Your task to perform on an android device: Add "razer huntsman" to the cart on target.com Image 0: 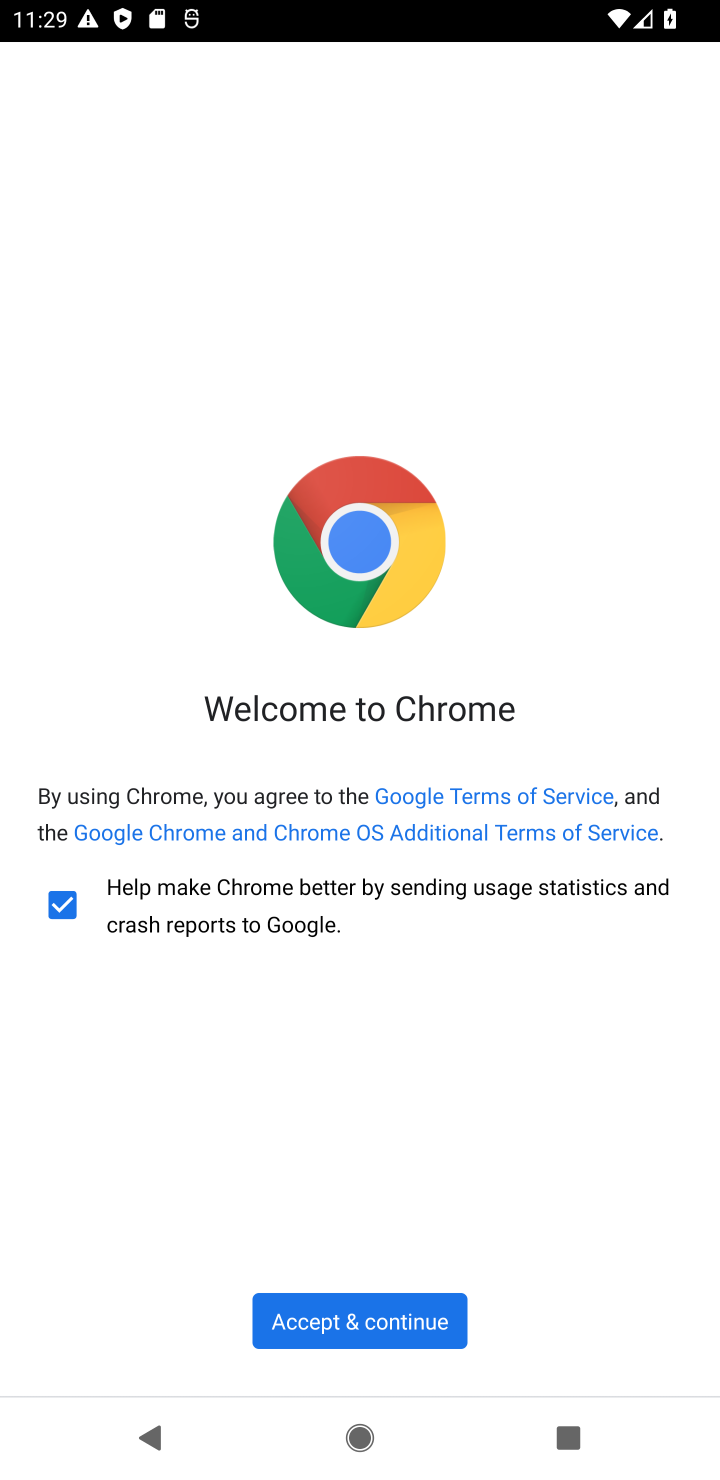
Step 0: press home button
Your task to perform on an android device: Add "razer huntsman" to the cart on target.com Image 1: 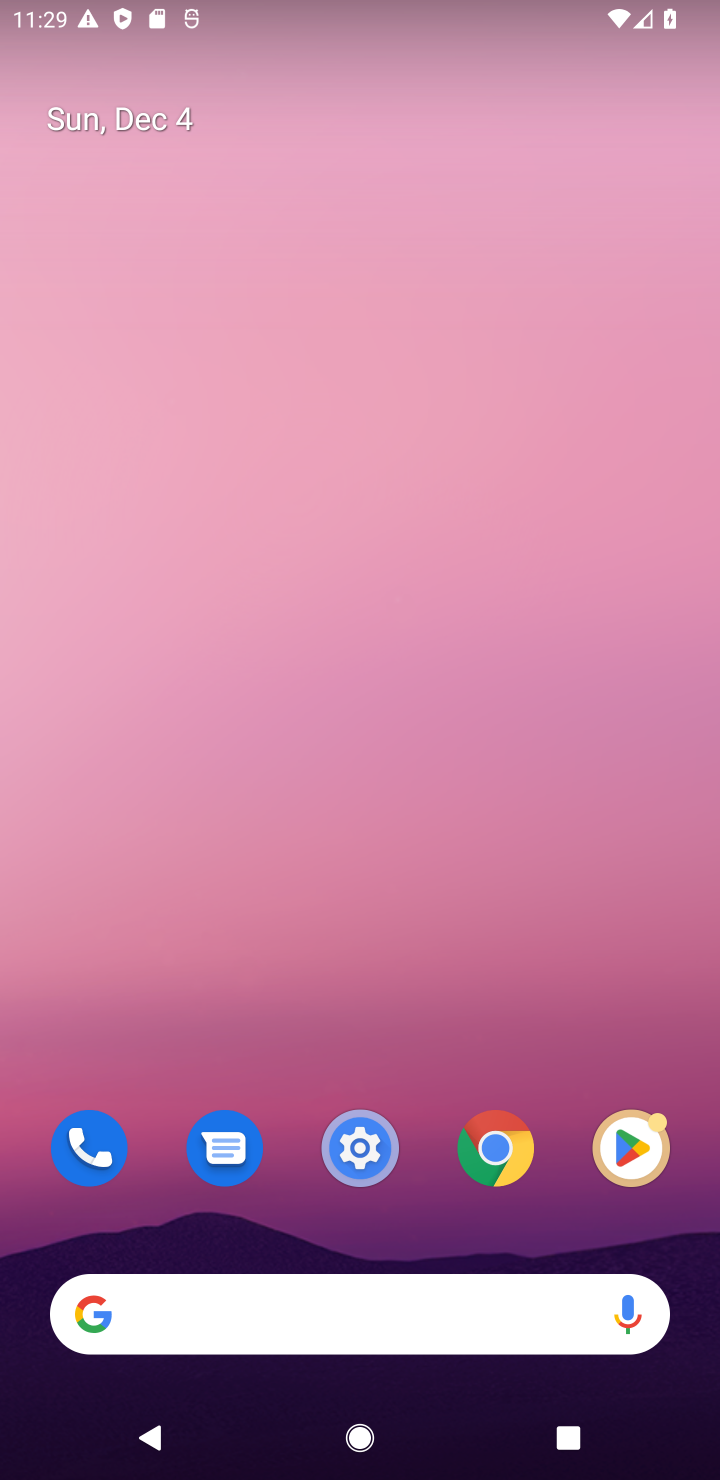
Step 1: drag from (336, 626) to (366, 370)
Your task to perform on an android device: Add "razer huntsman" to the cart on target.com Image 2: 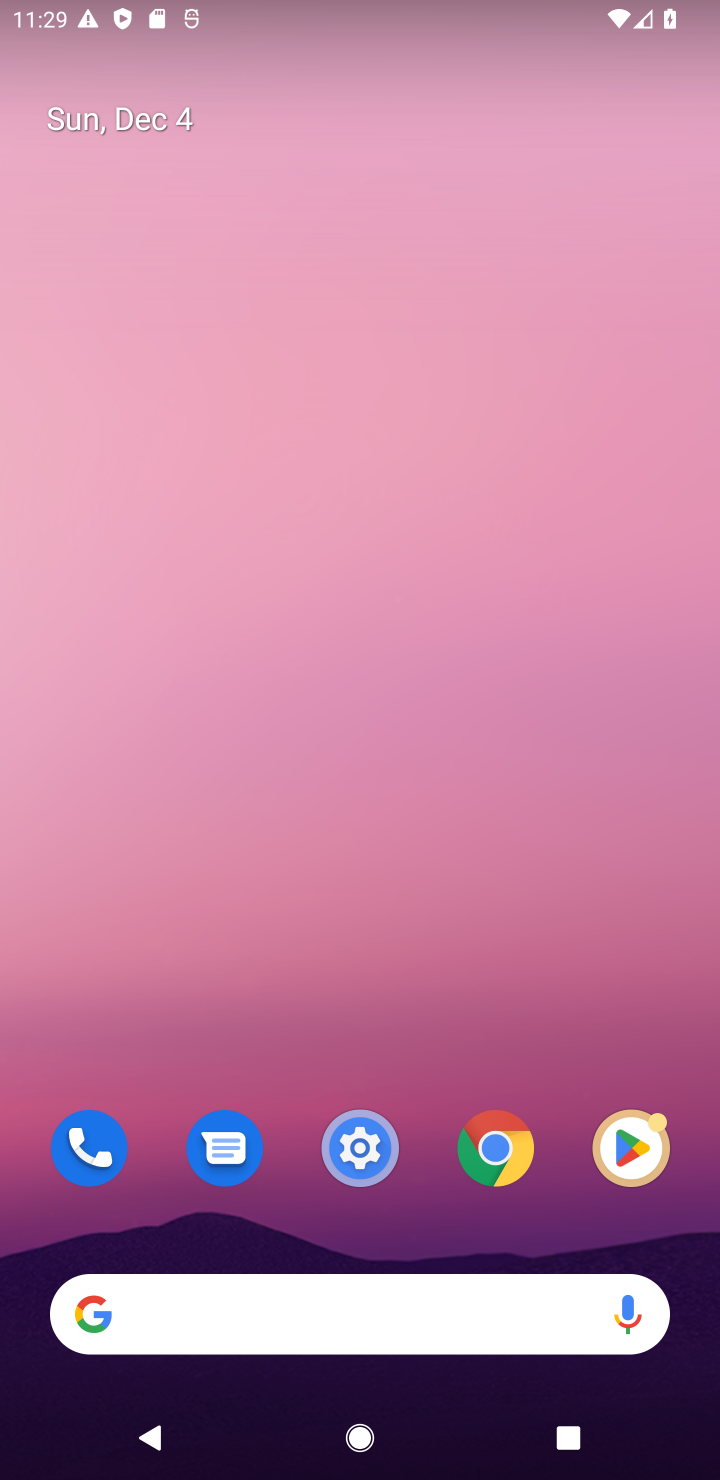
Step 2: drag from (410, 1256) to (432, 258)
Your task to perform on an android device: Add "razer huntsman" to the cart on target.com Image 3: 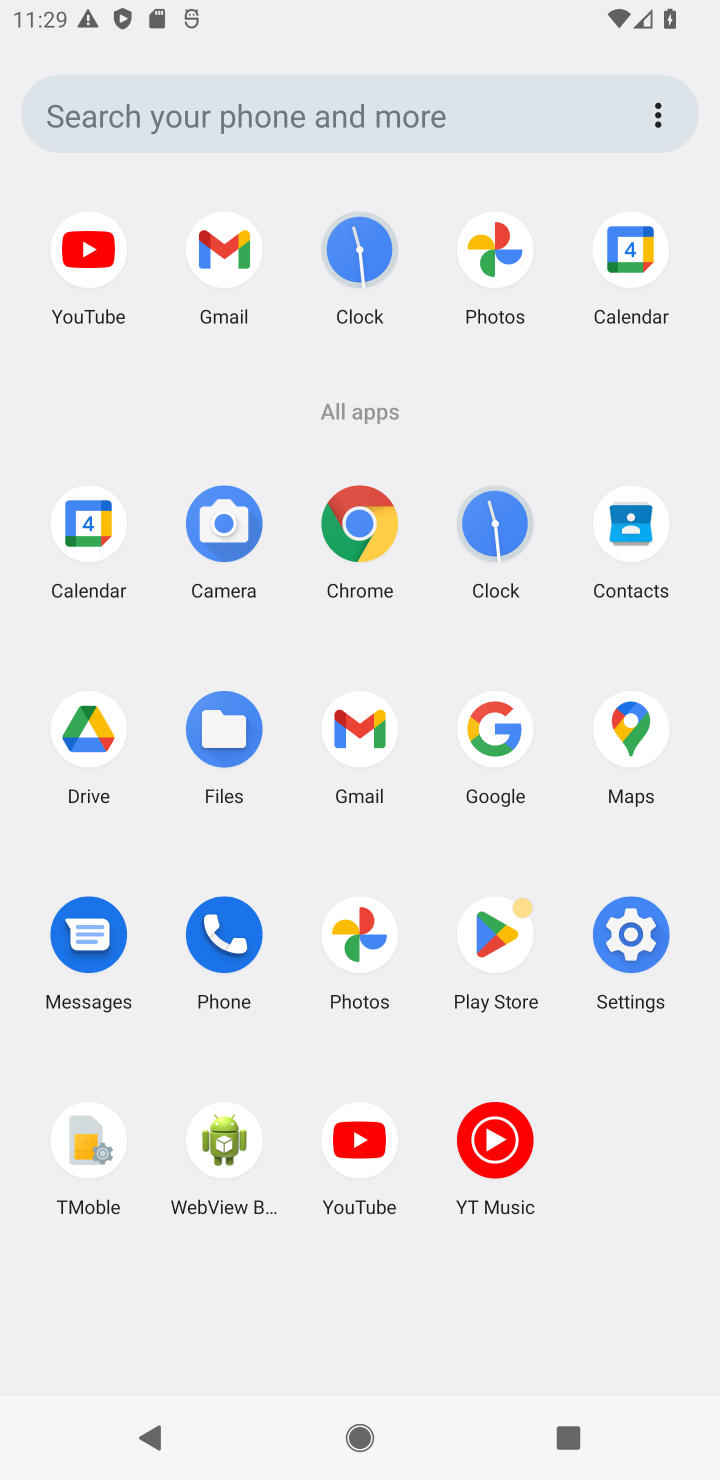
Step 3: click (481, 736)
Your task to perform on an android device: Add "razer huntsman" to the cart on target.com Image 4: 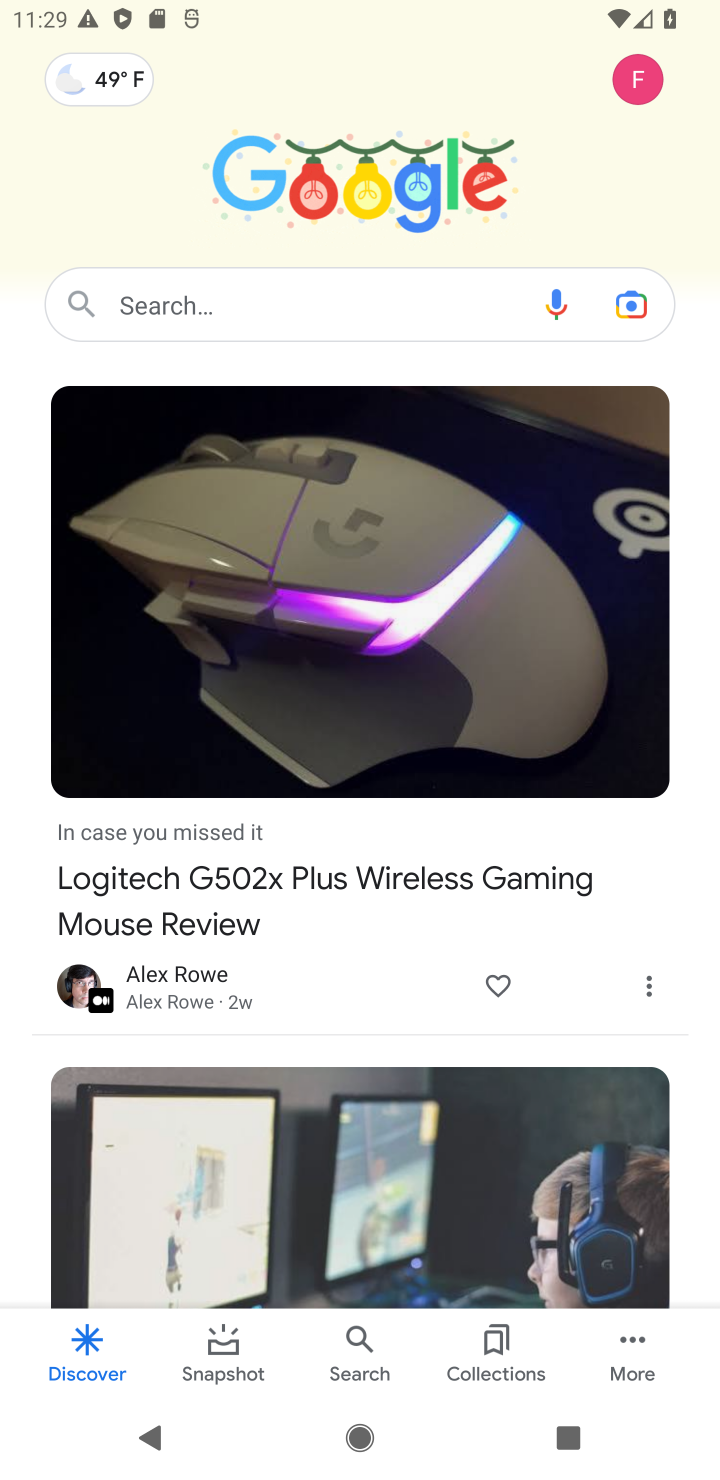
Step 4: click (168, 313)
Your task to perform on an android device: Add "razer huntsman" to the cart on target.com Image 5: 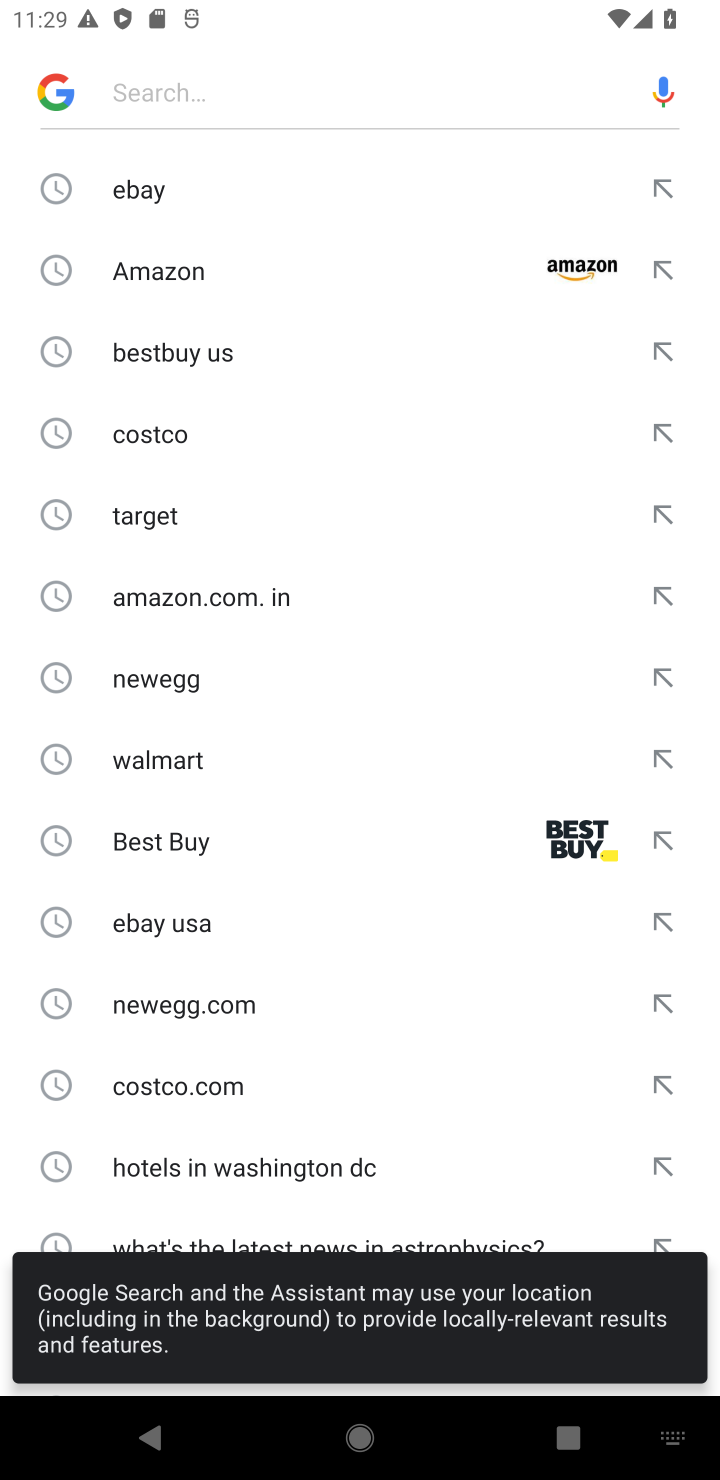
Step 5: click (141, 521)
Your task to perform on an android device: Add "razer huntsman" to the cart on target.com Image 6: 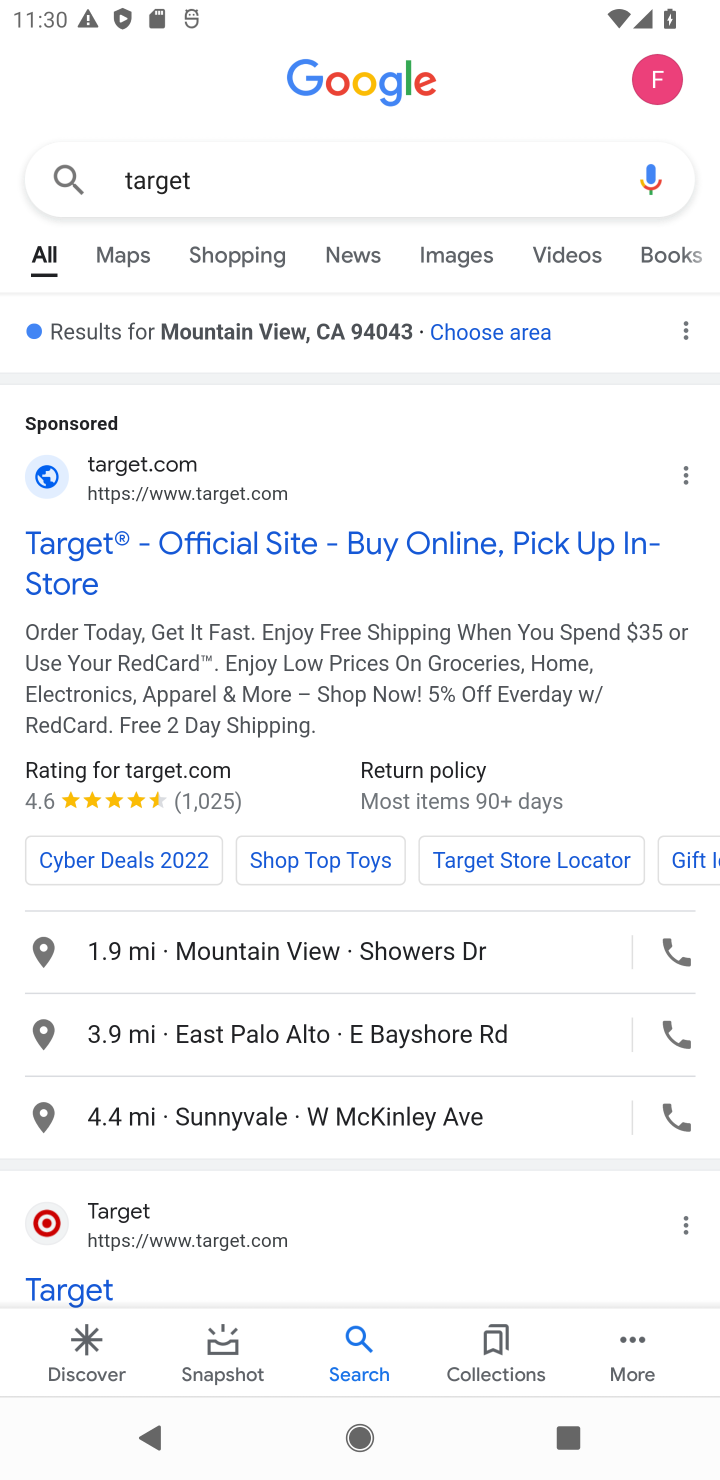
Step 6: click (144, 551)
Your task to perform on an android device: Add "razer huntsman" to the cart on target.com Image 7: 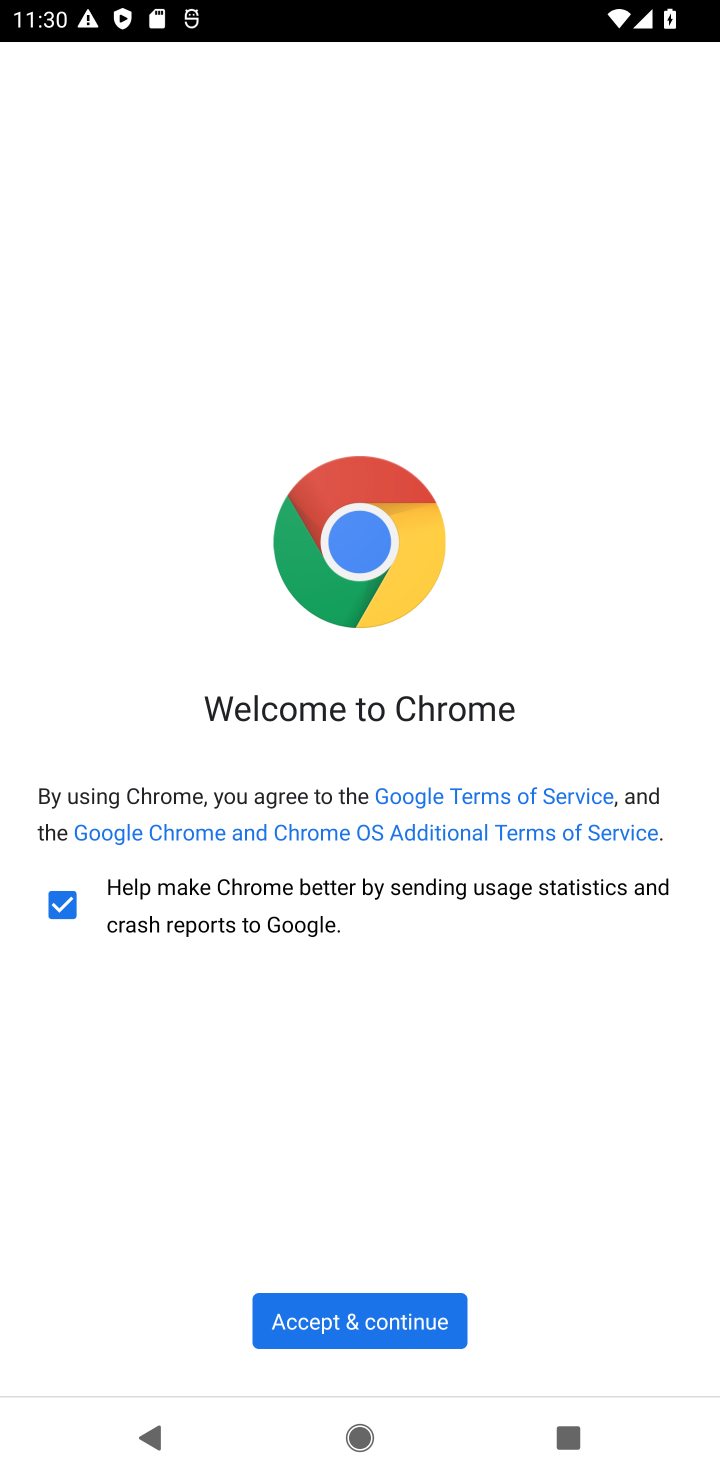
Step 7: click (344, 1329)
Your task to perform on an android device: Add "razer huntsman" to the cart on target.com Image 8: 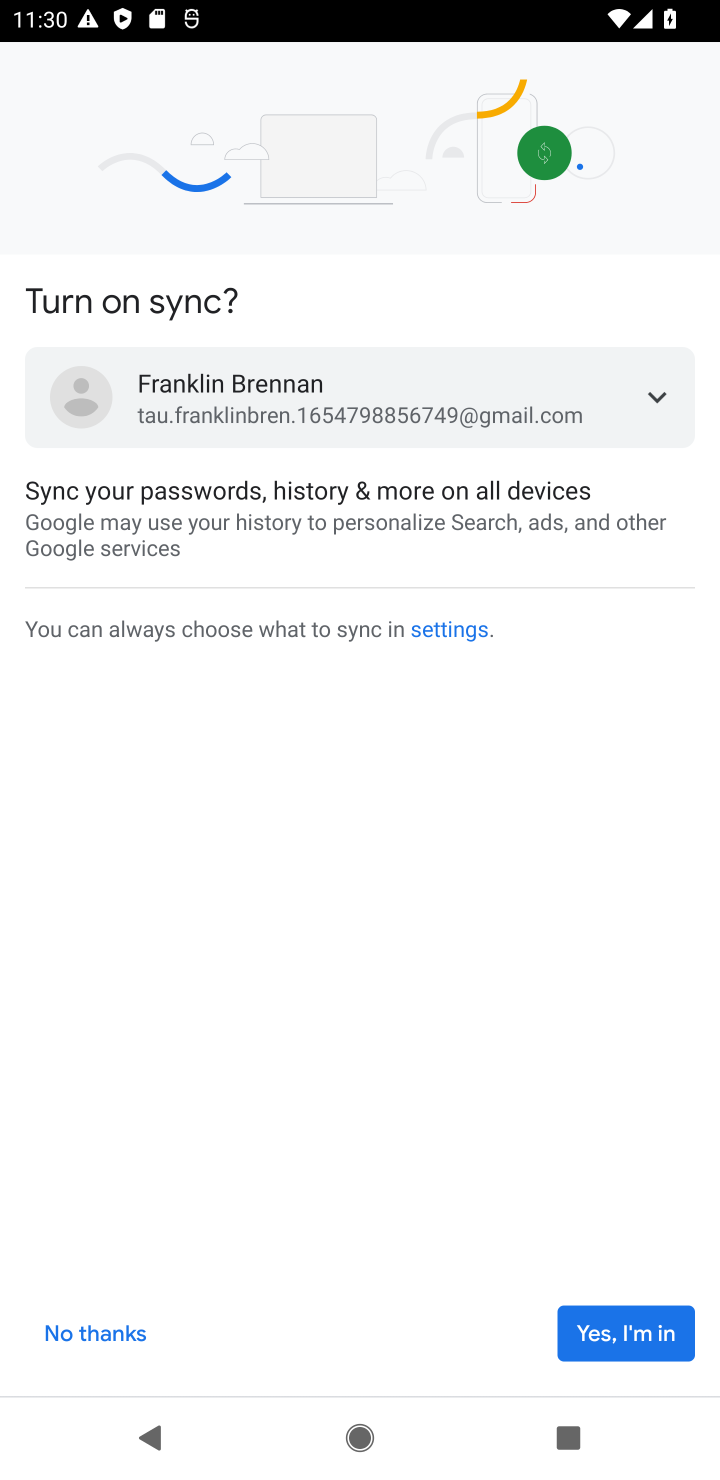
Step 8: click (585, 1343)
Your task to perform on an android device: Add "razer huntsman" to the cart on target.com Image 9: 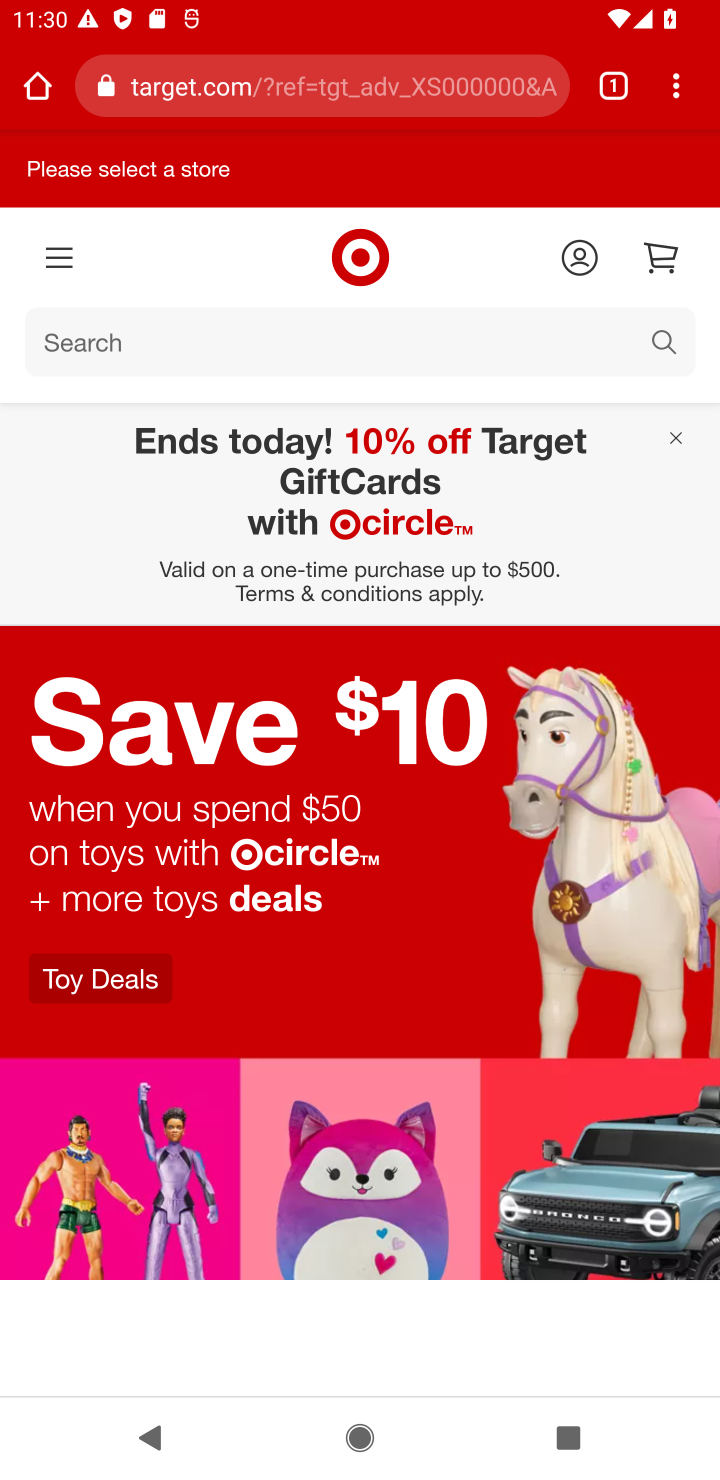
Step 9: click (81, 346)
Your task to perform on an android device: Add "razer huntsman" to the cart on target.com Image 10: 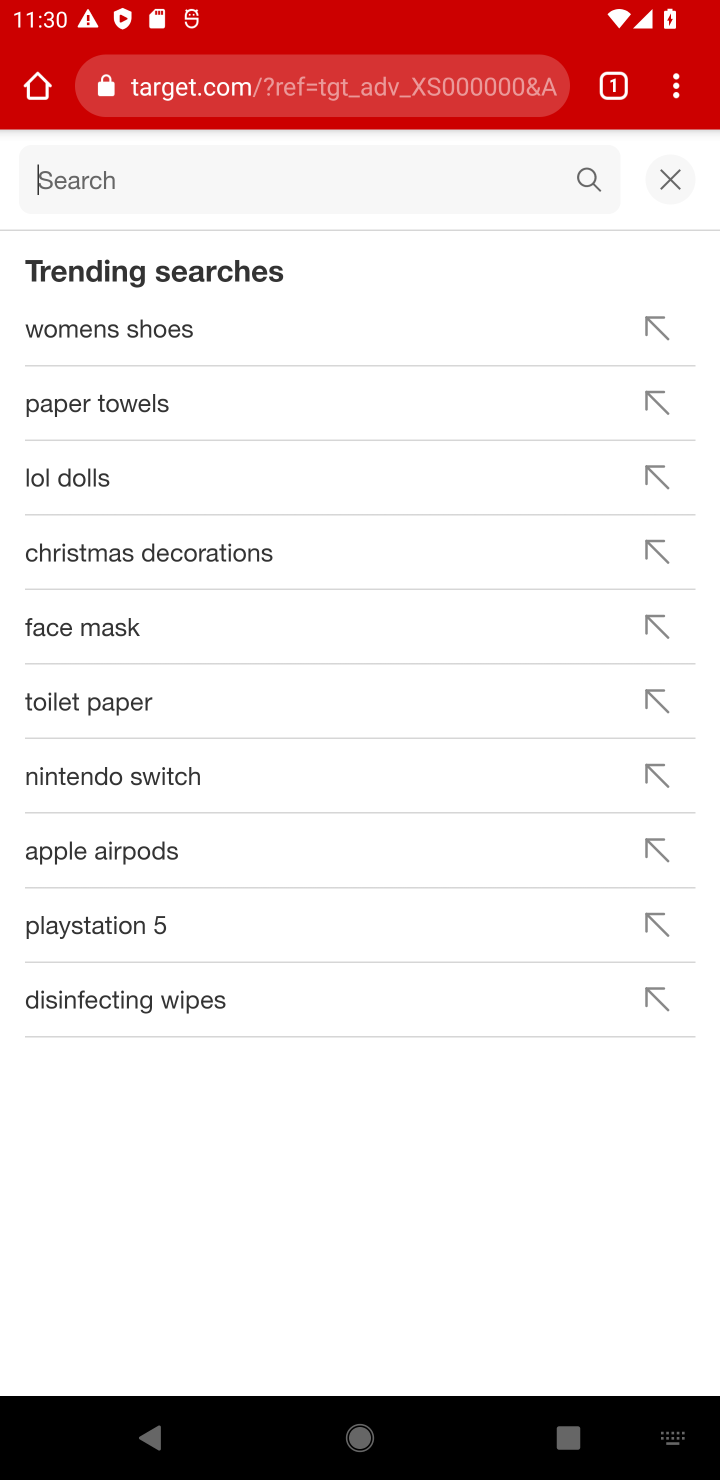
Step 10: type "razer huntsman"
Your task to perform on an android device: Add "razer huntsman" to the cart on target.com Image 11: 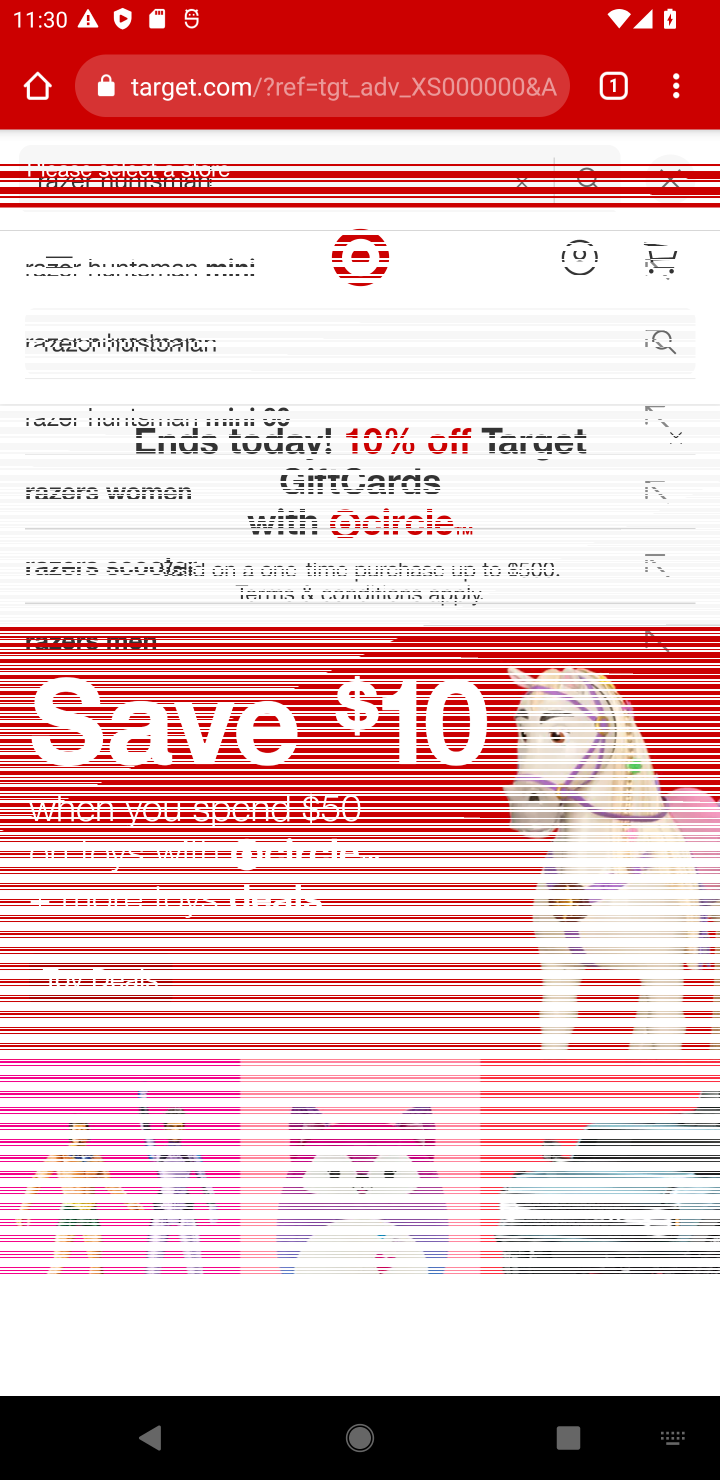
Step 11: click (179, 355)
Your task to perform on an android device: Add "razer huntsman" to the cart on target.com Image 12: 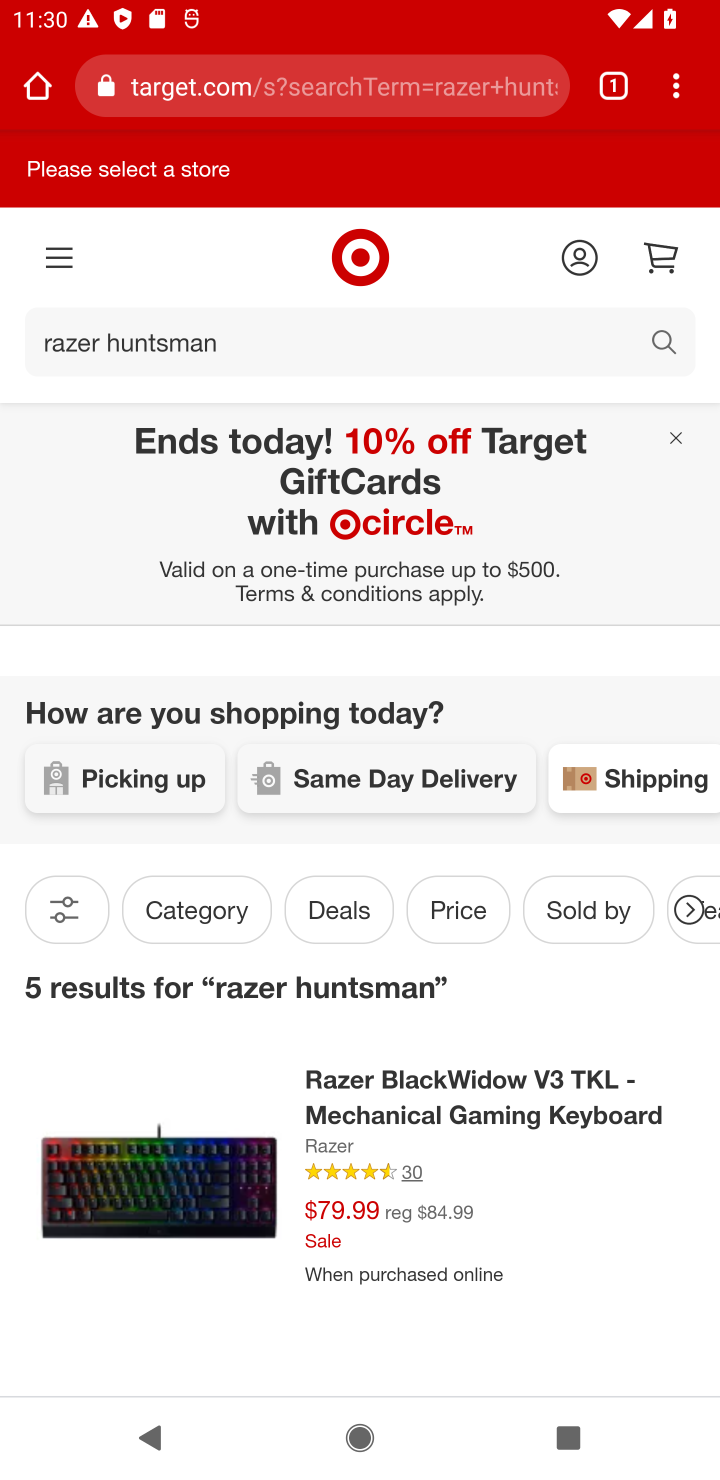
Step 12: drag from (425, 1123) to (441, 584)
Your task to perform on an android device: Add "razer huntsman" to the cart on target.com Image 13: 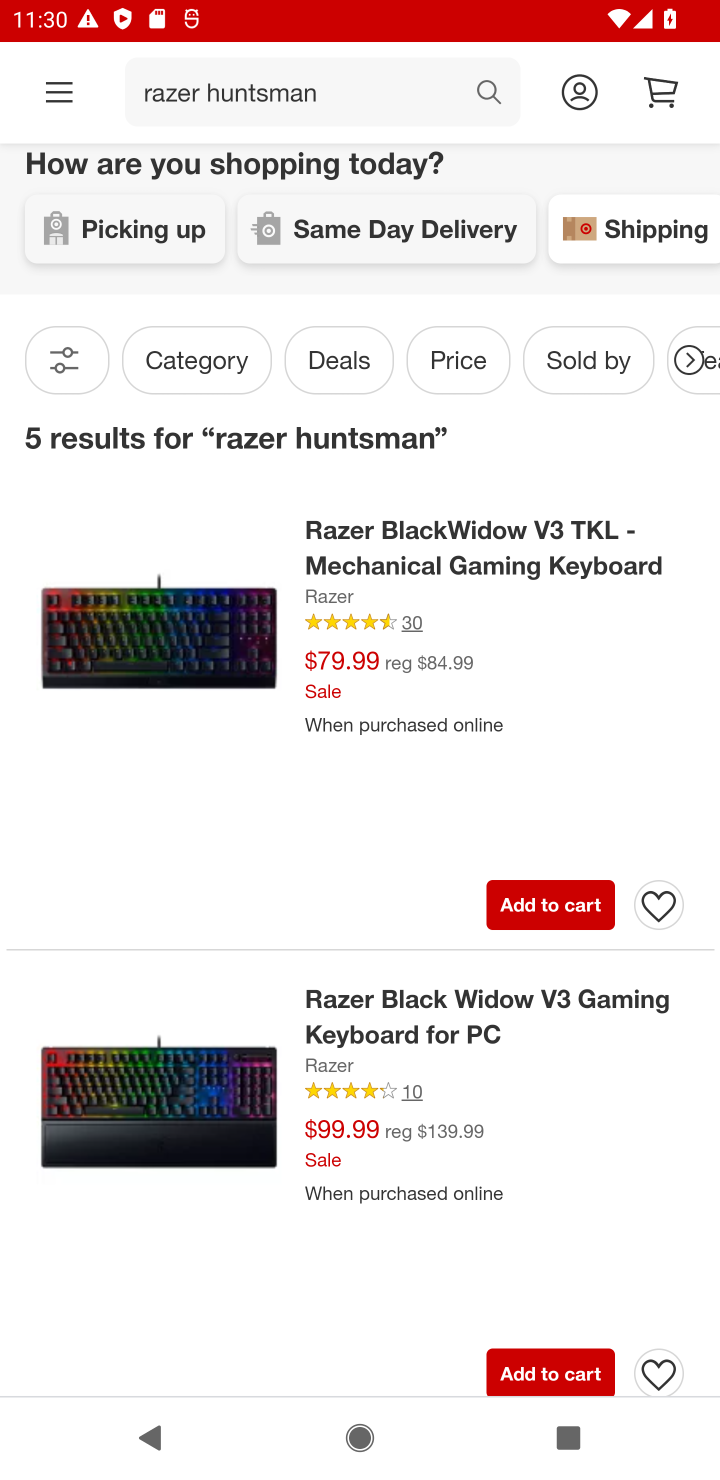
Step 13: click (529, 915)
Your task to perform on an android device: Add "razer huntsman" to the cart on target.com Image 14: 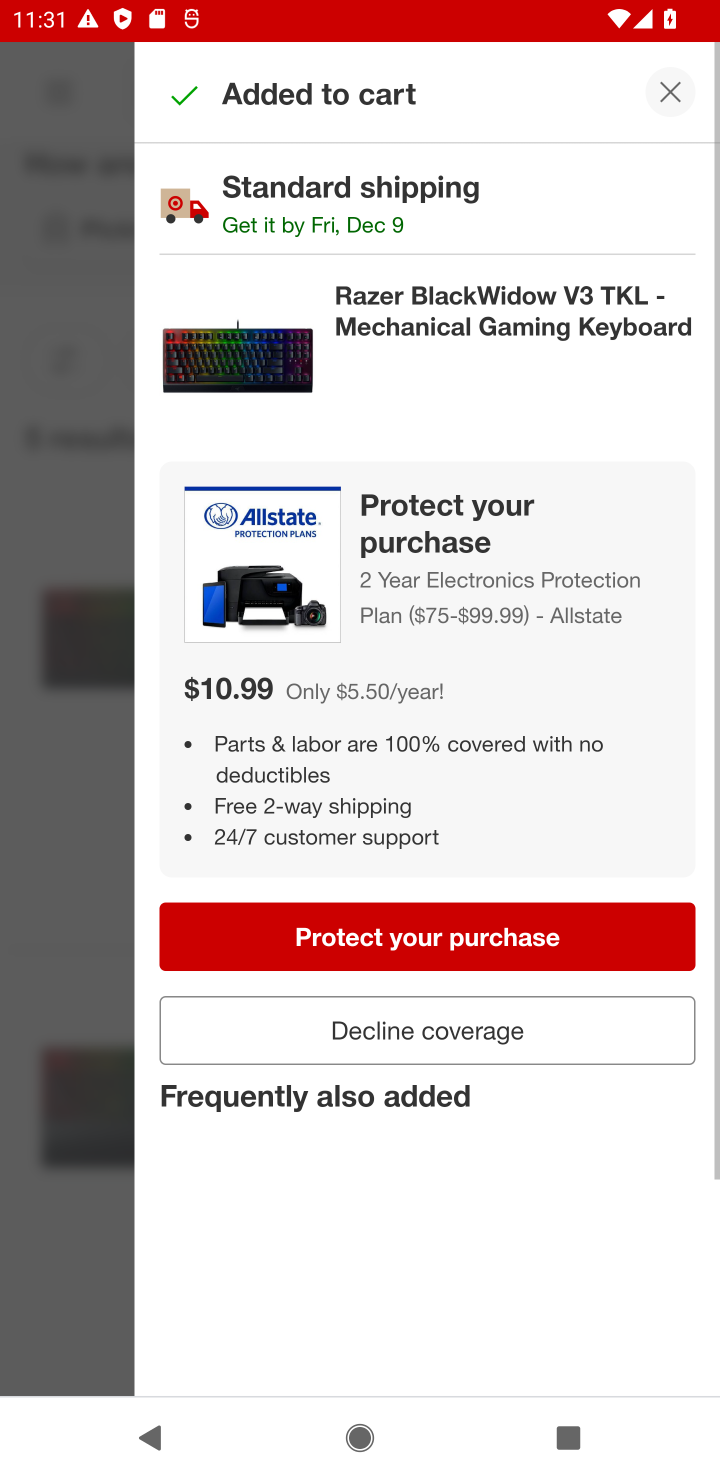
Step 14: click (674, 94)
Your task to perform on an android device: Add "razer huntsman" to the cart on target.com Image 15: 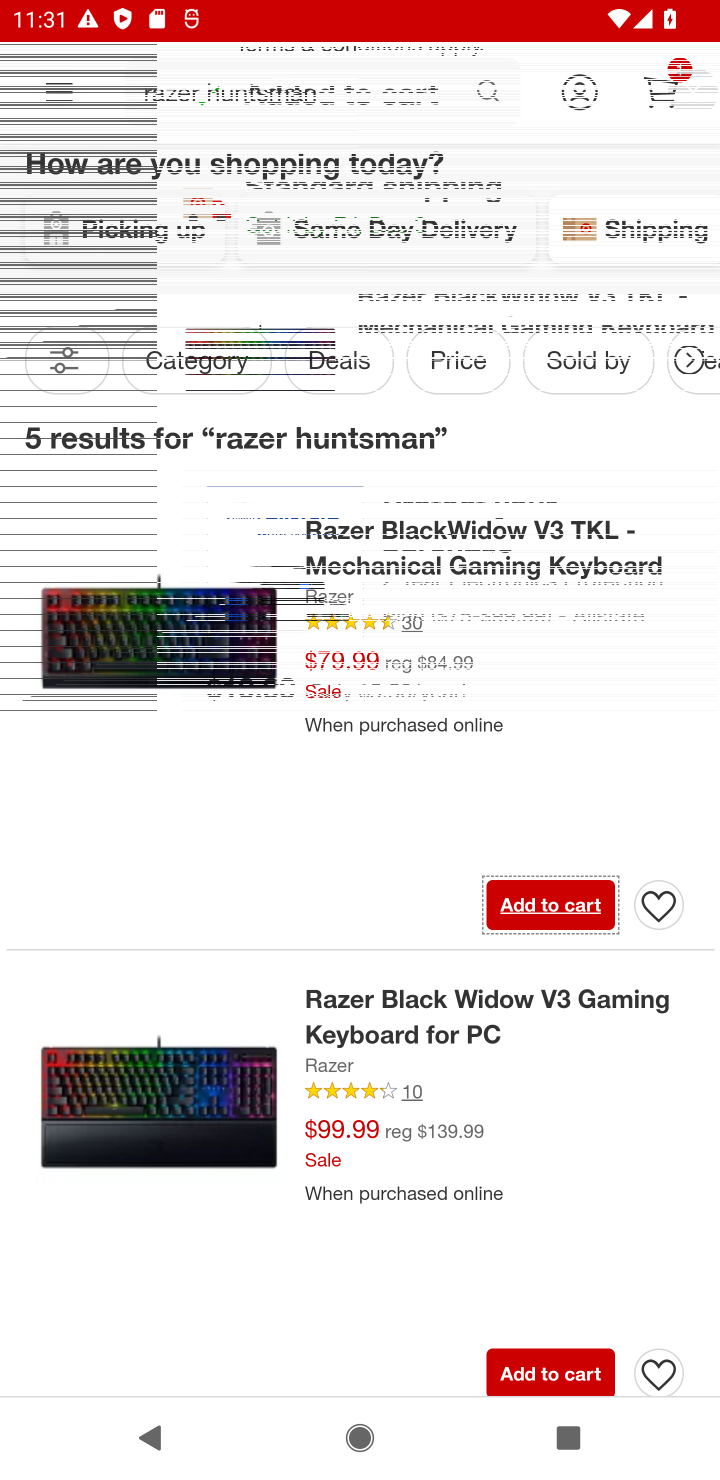
Step 15: task complete